Your task to perform on an android device: check google app version Image 0: 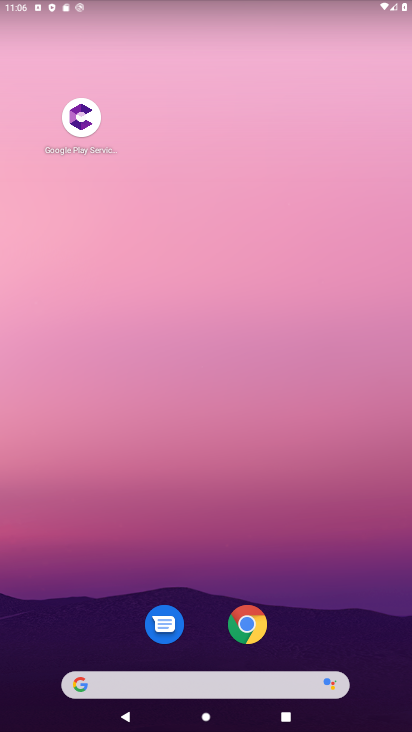
Step 0: drag from (198, 514) to (185, 195)
Your task to perform on an android device: check google app version Image 1: 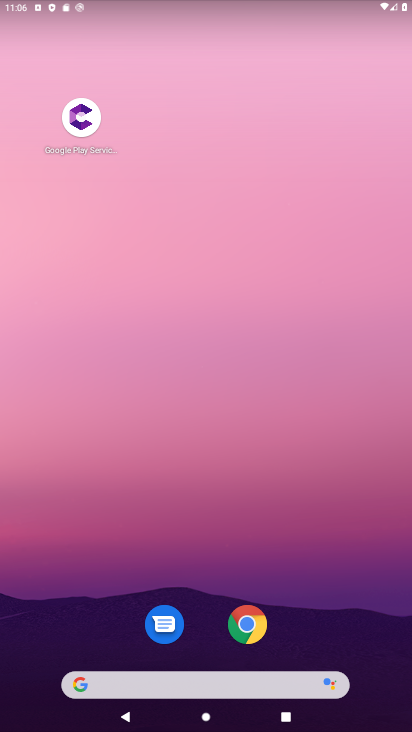
Step 1: drag from (204, 505) to (205, 44)
Your task to perform on an android device: check google app version Image 2: 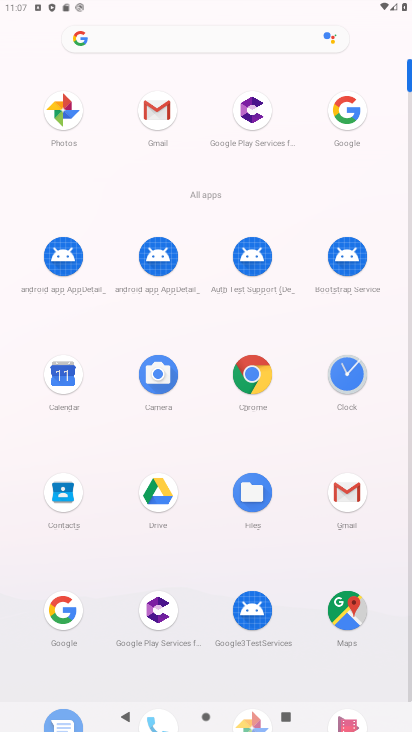
Step 2: click (348, 122)
Your task to perform on an android device: check google app version Image 3: 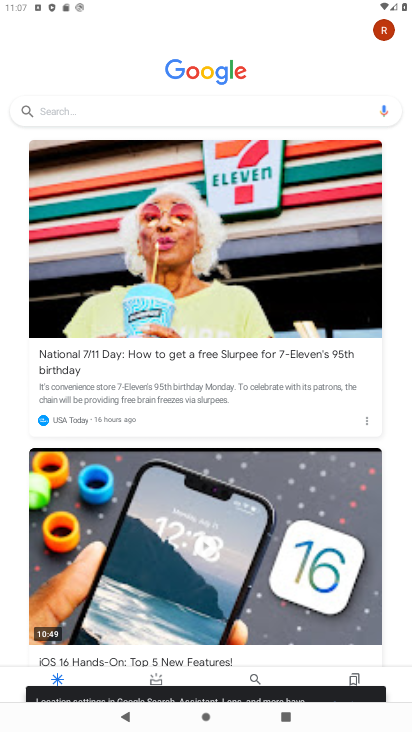
Step 3: click (381, 24)
Your task to perform on an android device: check google app version Image 4: 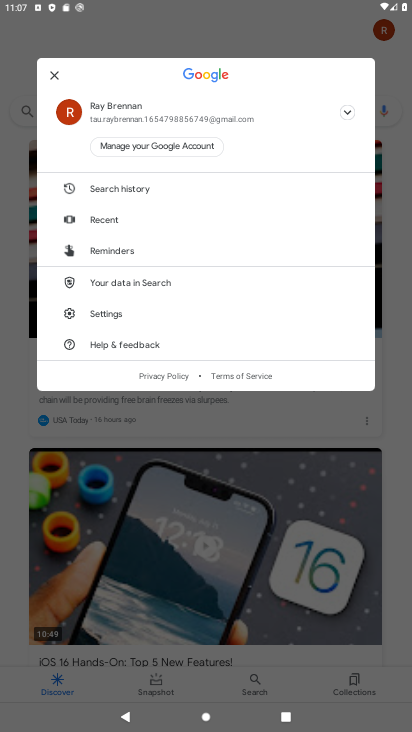
Step 4: click (112, 320)
Your task to perform on an android device: check google app version Image 5: 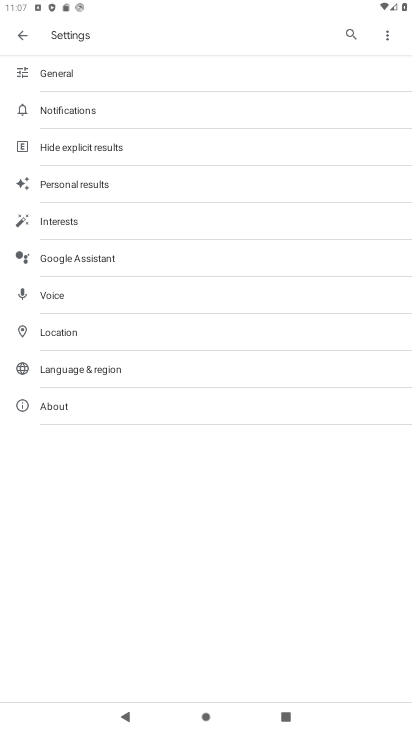
Step 5: click (93, 413)
Your task to perform on an android device: check google app version Image 6: 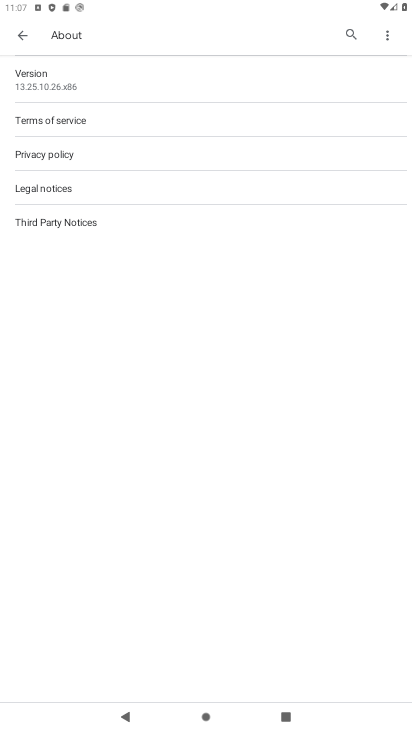
Step 6: click (114, 84)
Your task to perform on an android device: check google app version Image 7: 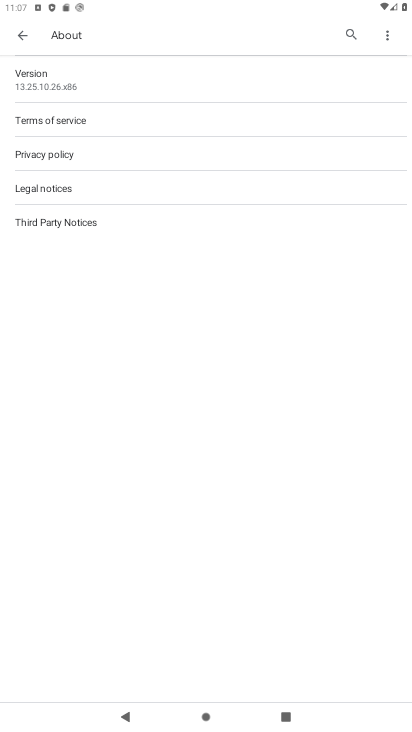
Step 7: click (84, 89)
Your task to perform on an android device: check google app version Image 8: 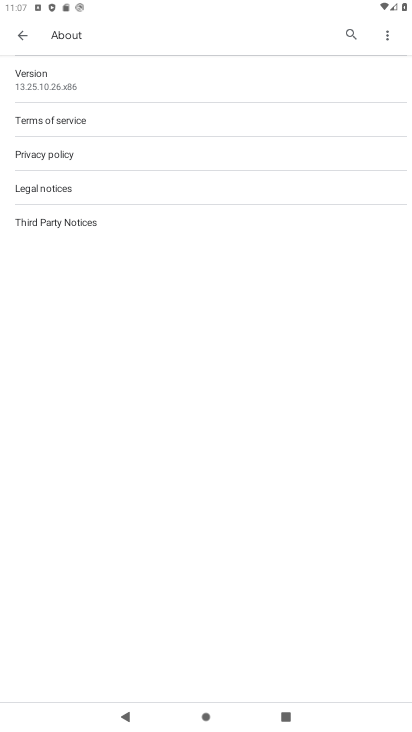
Step 8: task complete